Your task to perform on an android device: Open the calendar app, open the side menu, and click the "Day" option Image 0: 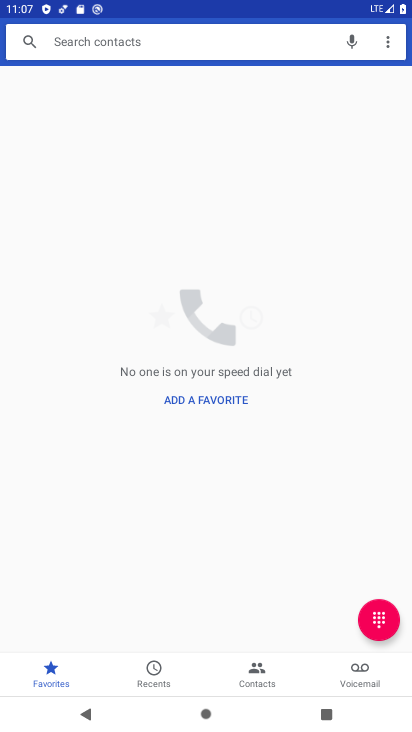
Step 0: press home button
Your task to perform on an android device: Open the calendar app, open the side menu, and click the "Day" option Image 1: 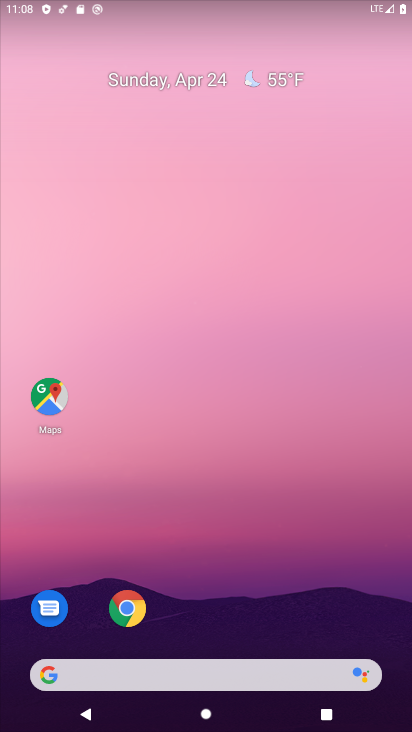
Step 1: drag from (192, 555) to (223, 18)
Your task to perform on an android device: Open the calendar app, open the side menu, and click the "Day" option Image 2: 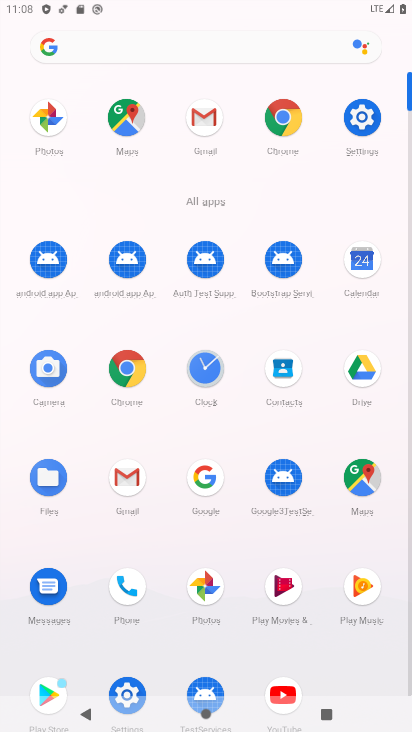
Step 2: click (366, 260)
Your task to perform on an android device: Open the calendar app, open the side menu, and click the "Day" option Image 3: 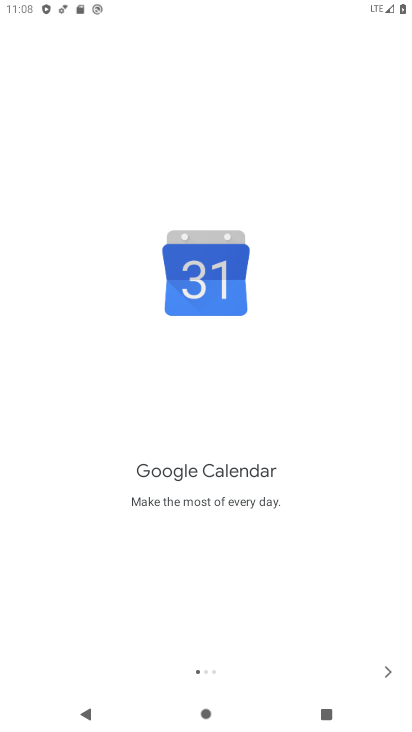
Step 3: click (382, 667)
Your task to perform on an android device: Open the calendar app, open the side menu, and click the "Day" option Image 4: 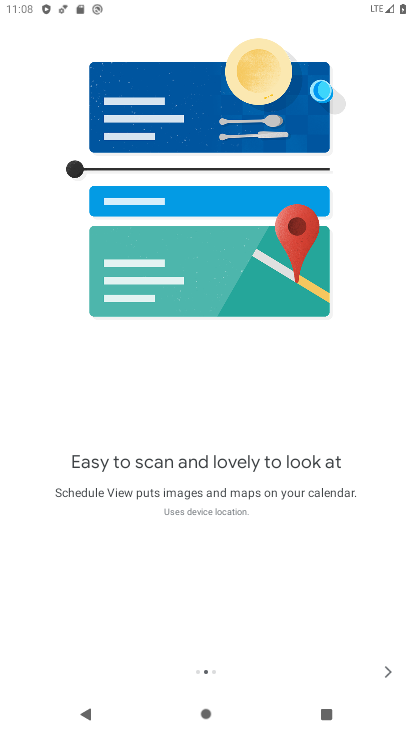
Step 4: click (382, 667)
Your task to perform on an android device: Open the calendar app, open the side menu, and click the "Day" option Image 5: 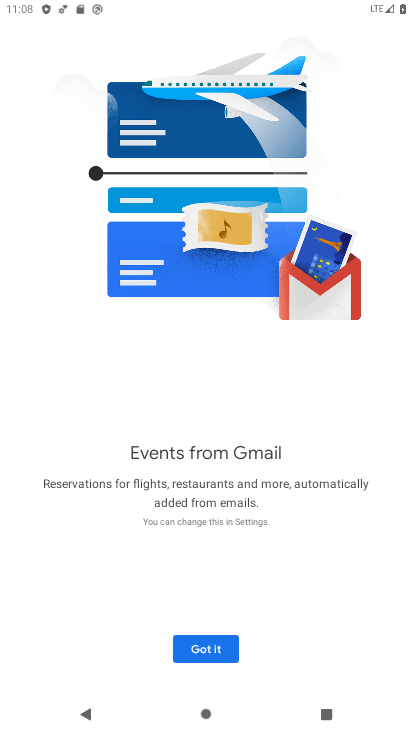
Step 5: click (206, 645)
Your task to perform on an android device: Open the calendar app, open the side menu, and click the "Day" option Image 6: 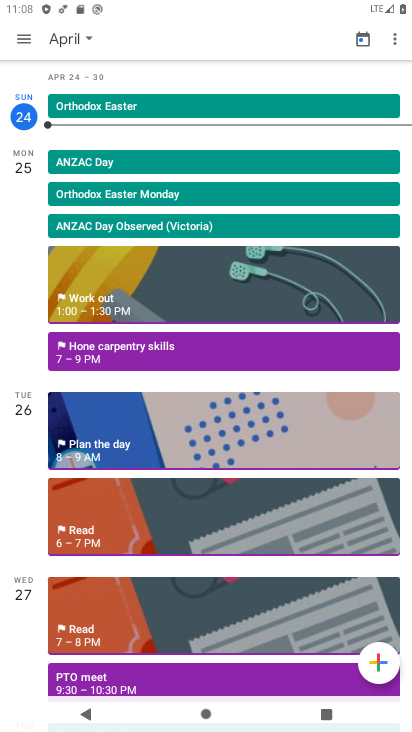
Step 6: click (28, 44)
Your task to perform on an android device: Open the calendar app, open the side menu, and click the "Day" option Image 7: 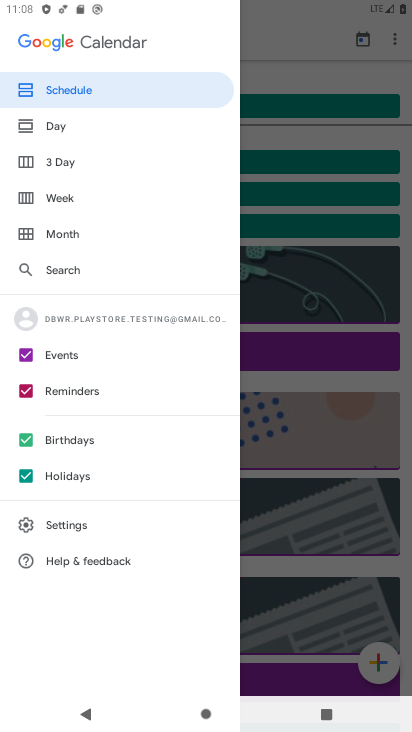
Step 7: click (60, 127)
Your task to perform on an android device: Open the calendar app, open the side menu, and click the "Day" option Image 8: 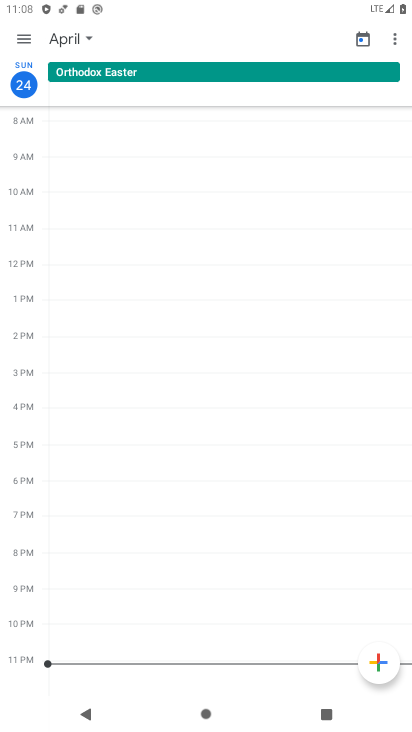
Step 8: task complete